Your task to perform on an android device: Open the calendar and show me this week's events Image 0: 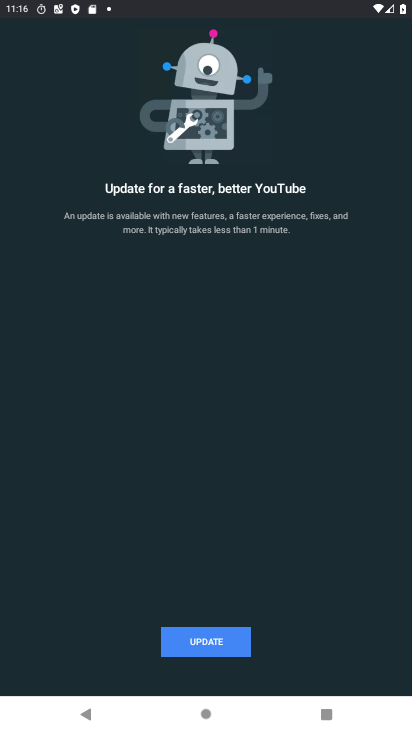
Step 0: press home button
Your task to perform on an android device: Open the calendar and show me this week's events Image 1: 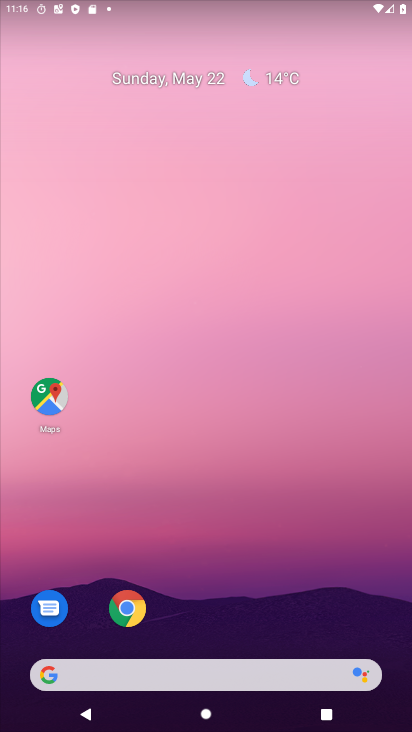
Step 1: drag from (161, 436) to (145, 102)
Your task to perform on an android device: Open the calendar and show me this week's events Image 2: 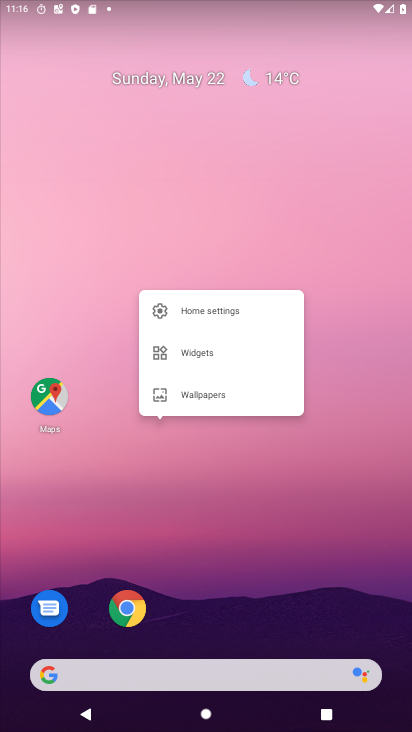
Step 2: click (272, 449)
Your task to perform on an android device: Open the calendar and show me this week's events Image 3: 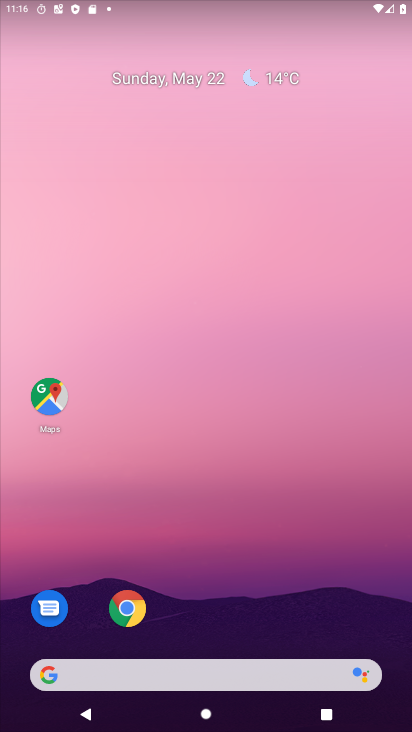
Step 3: drag from (228, 719) to (203, 0)
Your task to perform on an android device: Open the calendar and show me this week's events Image 4: 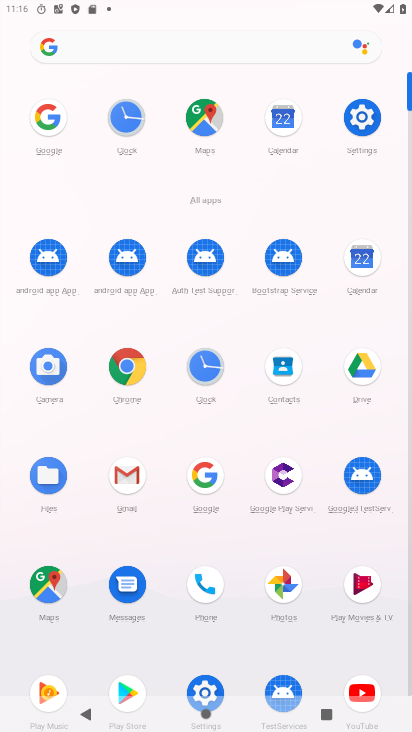
Step 4: click (355, 262)
Your task to perform on an android device: Open the calendar and show me this week's events Image 5: 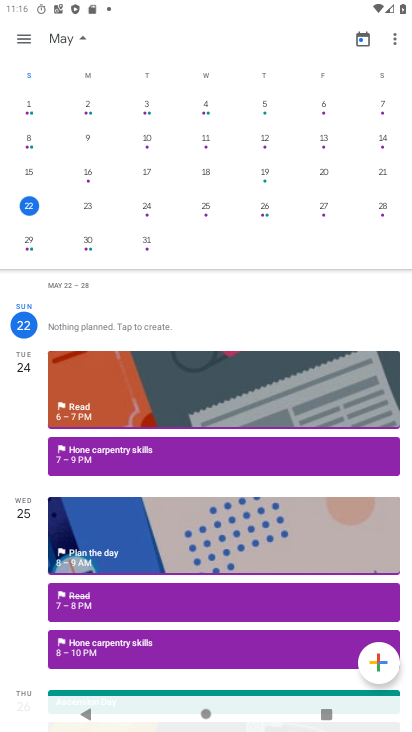
Step 5: click (23, 36)
Your task to perform on an android device: Open the calendar and show me this week's events Image 6: 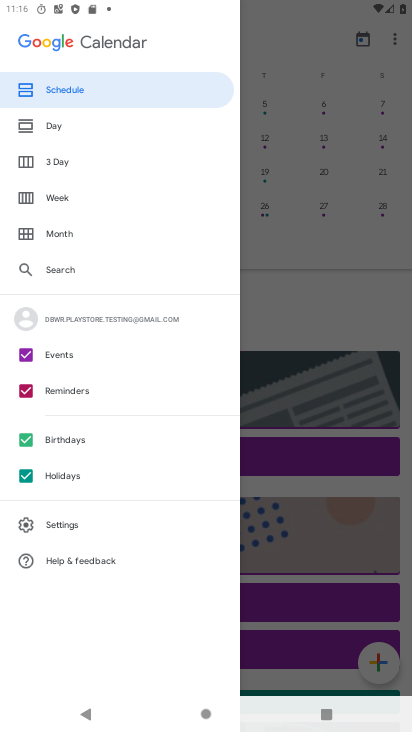
Step 6: click (24, 473)
Your task to perform on an android device: Open the calendar and show me this week's events Image 7: 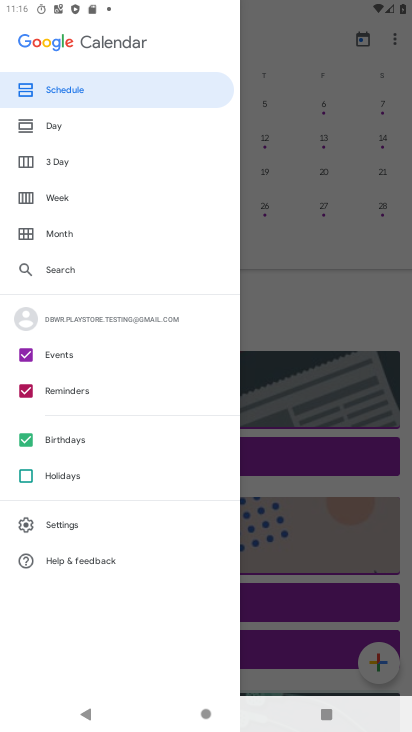
Step 7: click (23, 439)
Your task to perform on an android device: Open the calendar and show me this week's events Image 8: 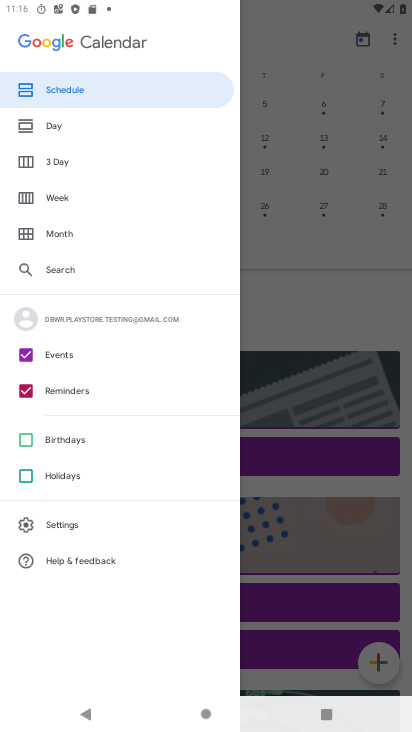
Step 8: click (23, 390)
Your task to perform on an android device: Open the calendar and show me this week's events Image 9: 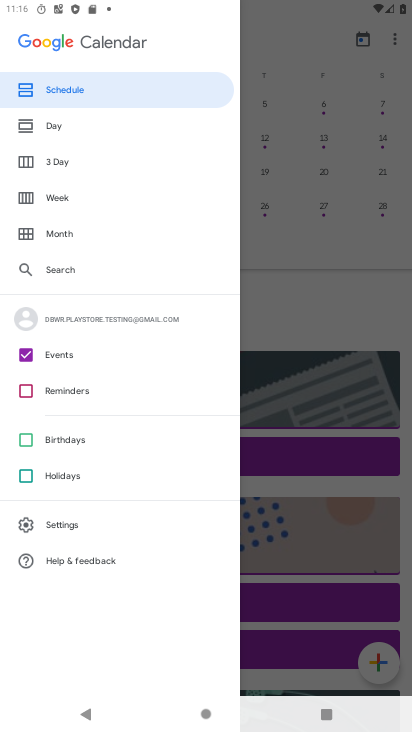
Step 9: click (65, 199)
Your task to perform on an android device: Open the calendar and show me this week's events Image 10: 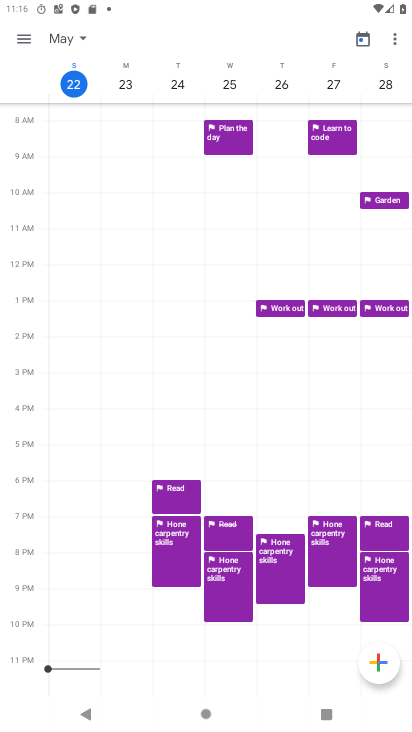
Step 10: task complete